Your task to perform on an android device: Search for the new Apple Watch on Best Buy Image 0: 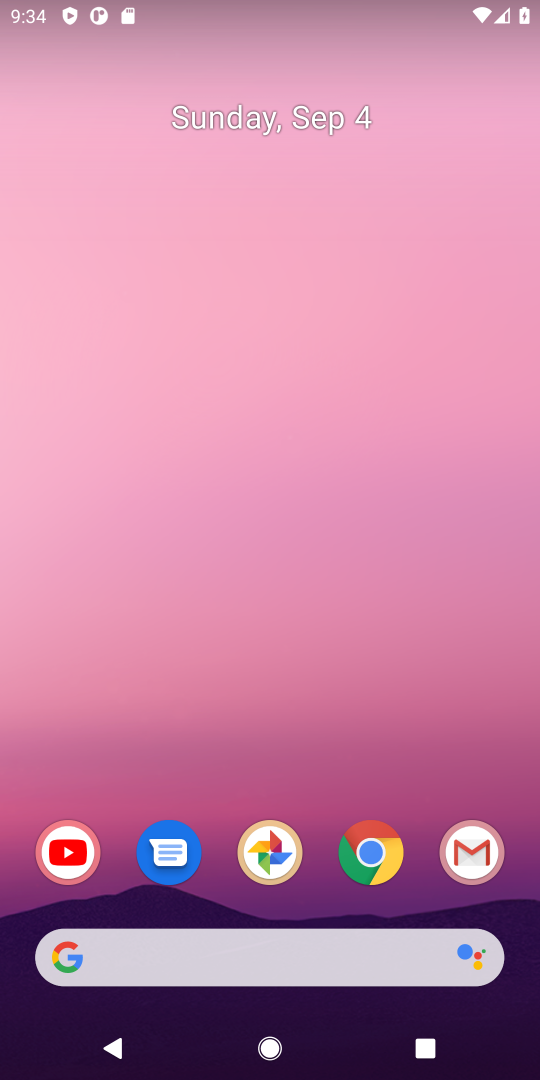
Step 0: drag from (431, 798) to (339, 31)
Your task to perform on an android device: Search for the new Apple Watch on Best Buy Image 1: 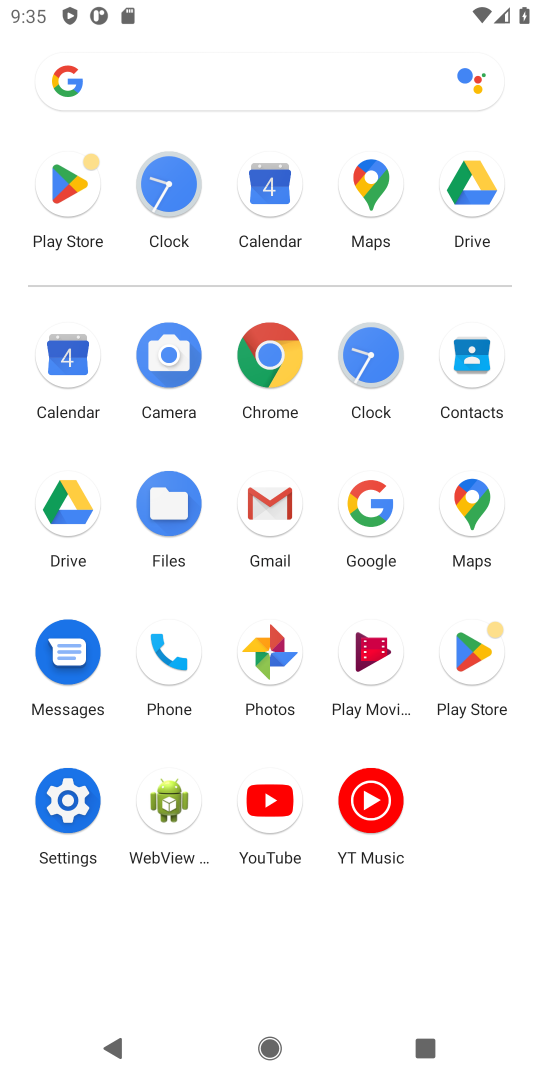
Step 1: click (385, 503)
Your task to perform on an android device: Search for the new Apple Watch on Best Buy Image 2: 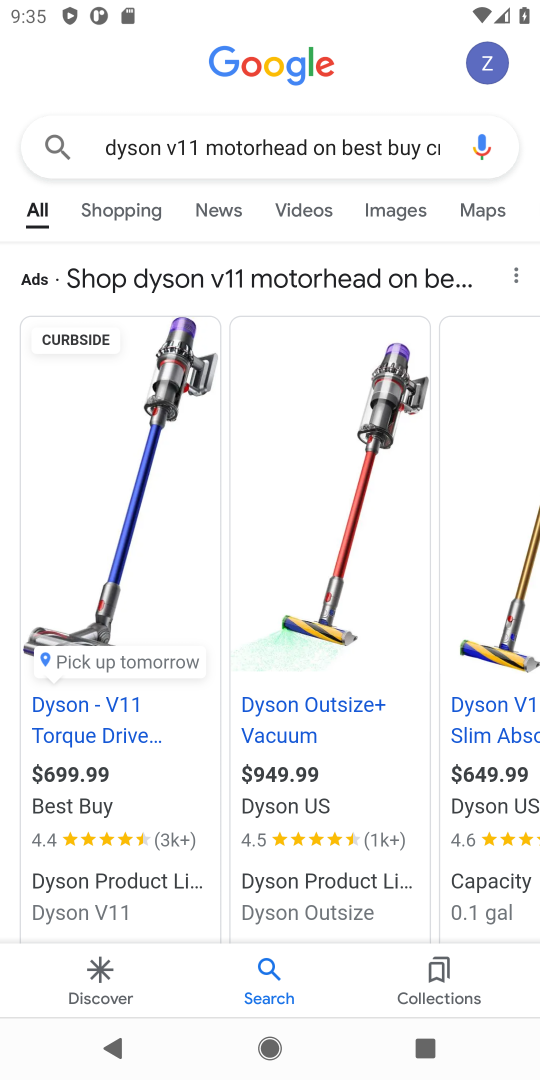
Step 2: press back button
Your task to perform on an android device: Search for the new Apple Watch on Best Buy Image 3: 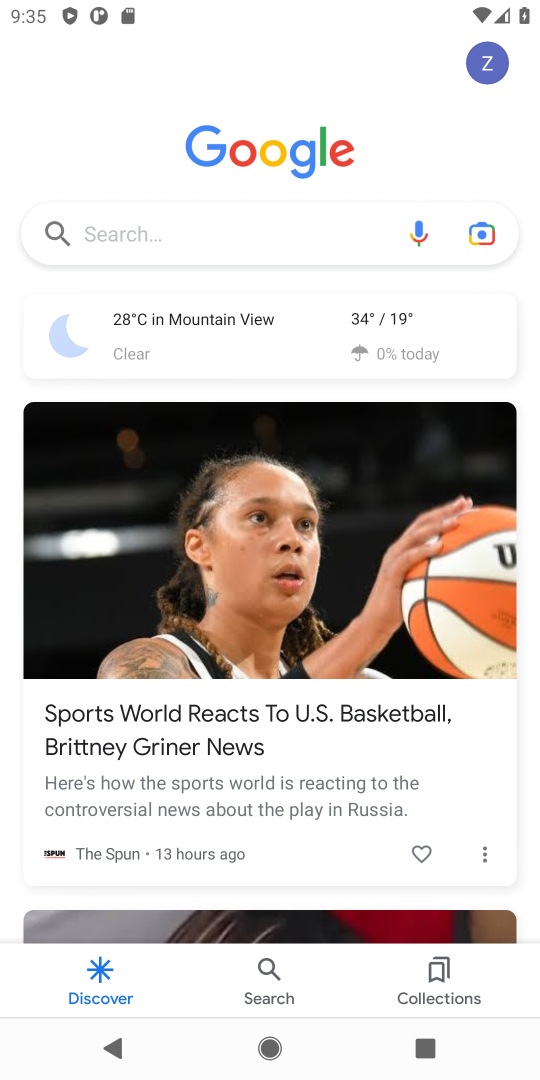
Step 3: click (192, 250)
Your task to perform on an android device: Search for the new Apple Watch on Best Buy Image 4: 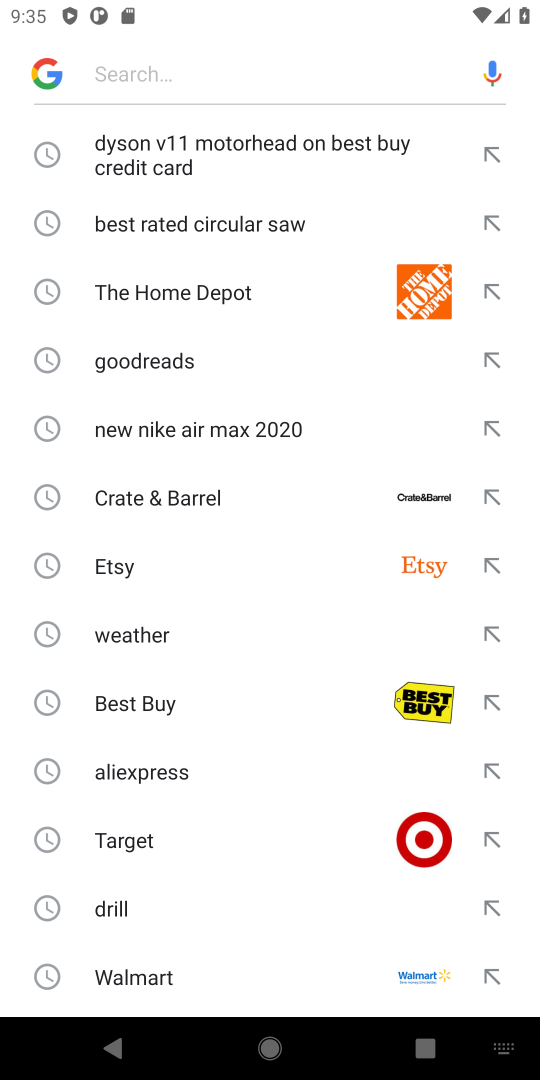
Step 4: type "new Apple Watch on Best Buy"
Your task to perform on an android device: Search for the new Apple Watch on Best Buy Image 5: 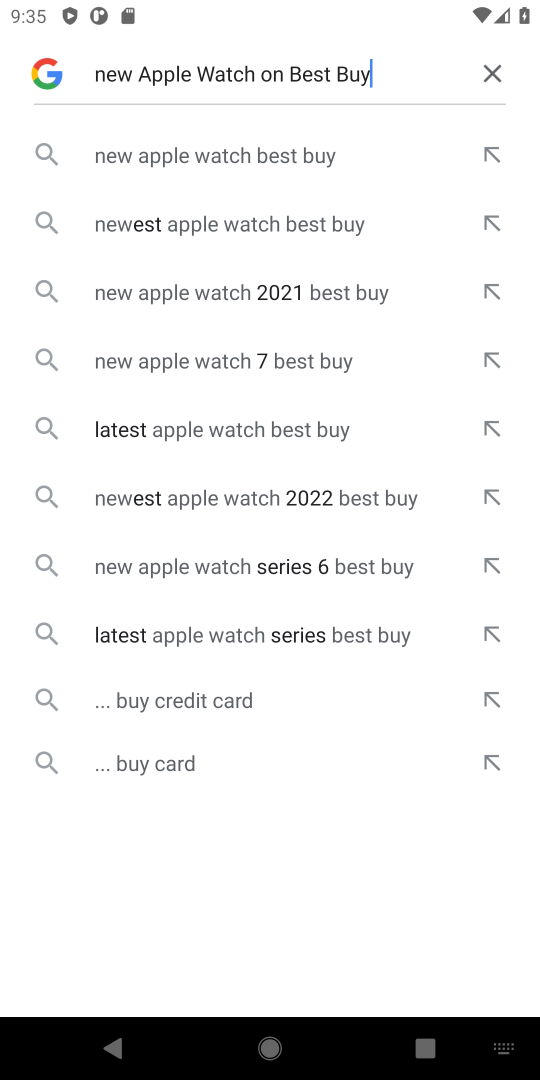
Step 5: click (212, 154)
Your task to perform on an android device: Search for the new Apple Watch on Best Buy Image 6: 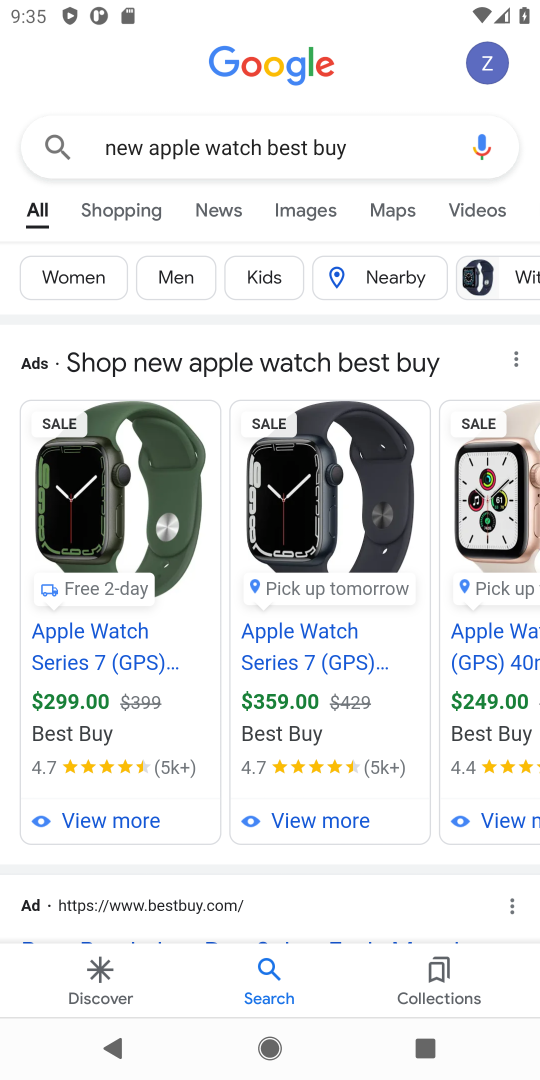
Step 6: task complete